Your task to perform on an android device: Find coffee shops on Maps Image 0: 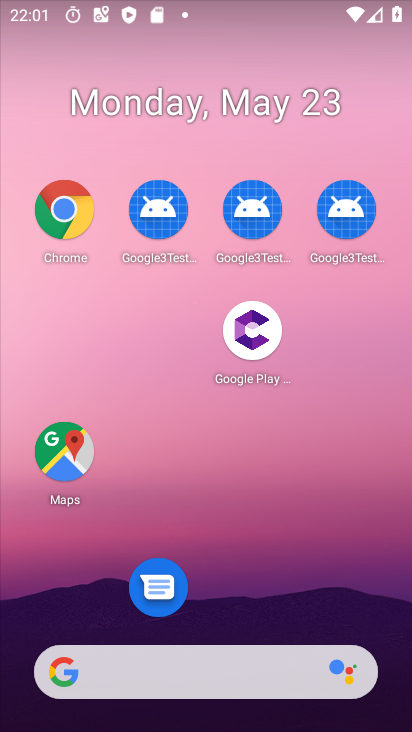
Step 0: click (71, 455)
Your task to perform on an android device: Find coffee shops on Maps Image 1: 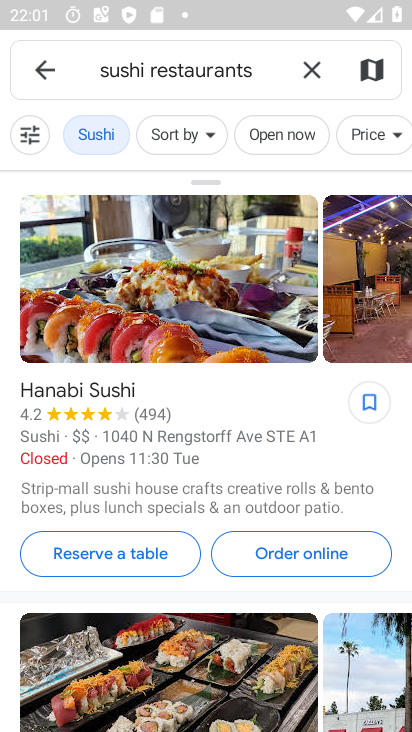
Step 1: click (318, 67)
Your task to perform on an android device: Find coffee shops on Maps Image 2: 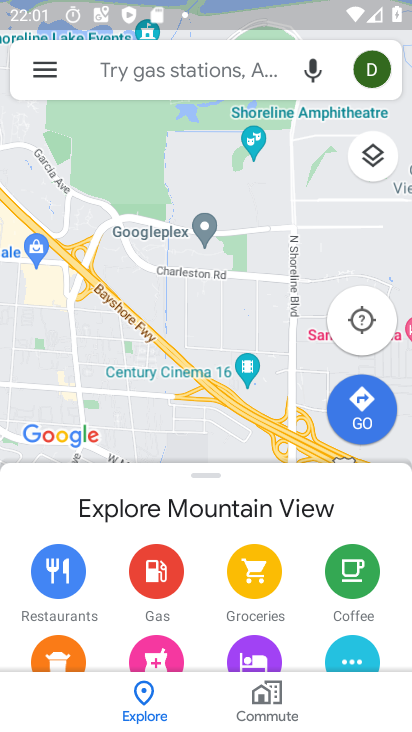
Step 2: click (203, 85)
Your task to perform on an android device: Find coffee shops on Maps Image 3: 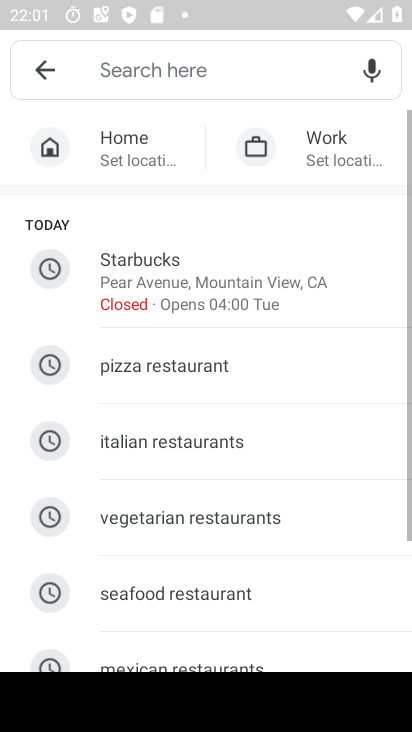
Step 3: click (331, 220)
Your task to perform on an android device: Find coffee shops on Maps Image 4: 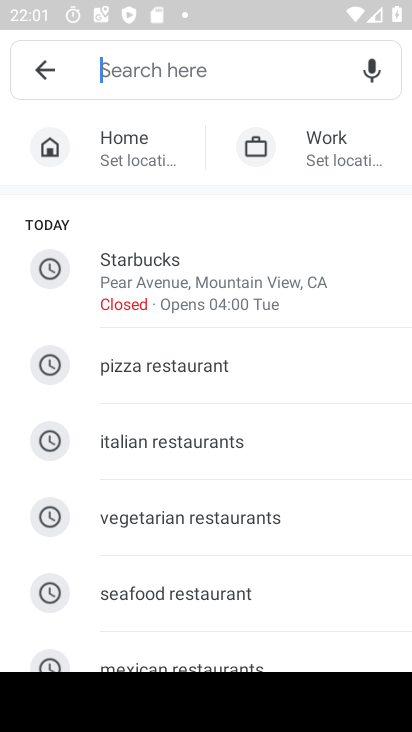
Step 4: type "coffee shops"
Your task to perform on an android device: Find coffee shops on Maps Image 5: 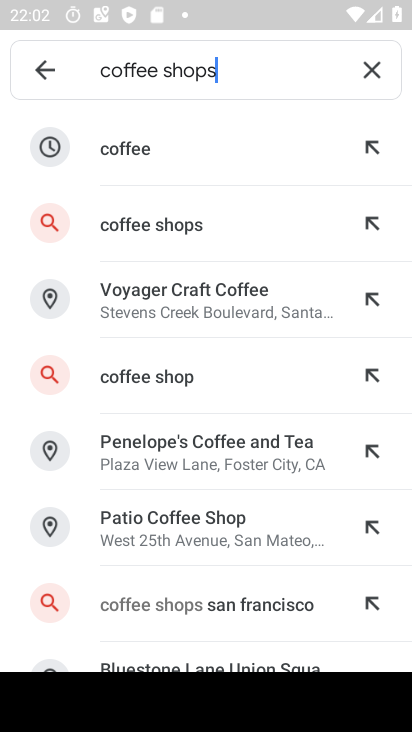
Step 5: click (172, 221)
Your task to perform on an android device: Find coffee shops on Maps Image 6: 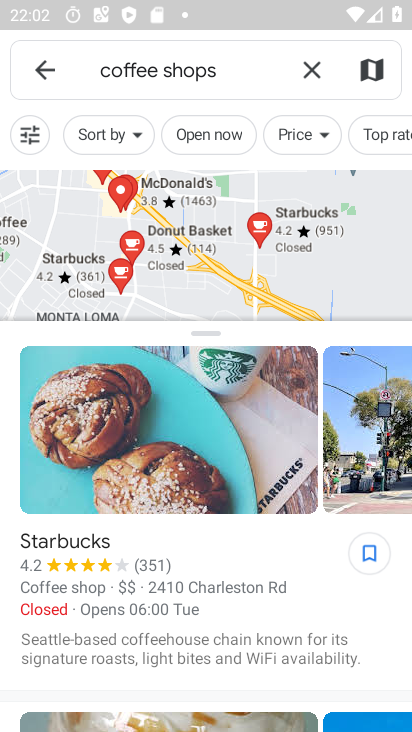
Step 6: task complete